Your task to perform on an android device: add a contact in the contacts app Image 0: 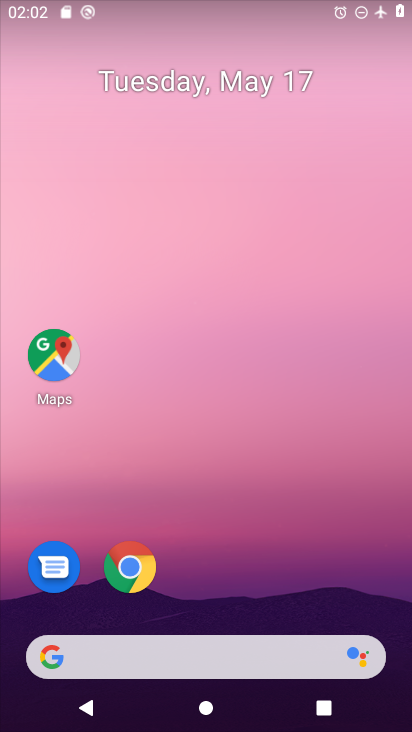
Step 0: drag from (352, 531) to (204, 87)
Your task to perform on an android device: add a contact in the contacts app Image 1: 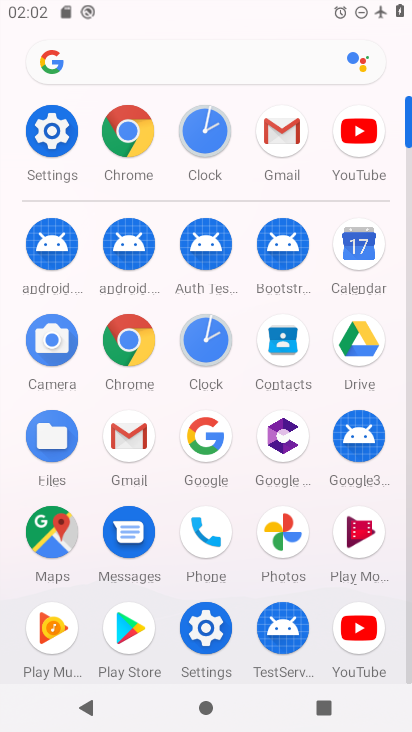
Step 1: click (276, 350)
Your task to perform on an android device: add a contact in the contacts app Image 2: 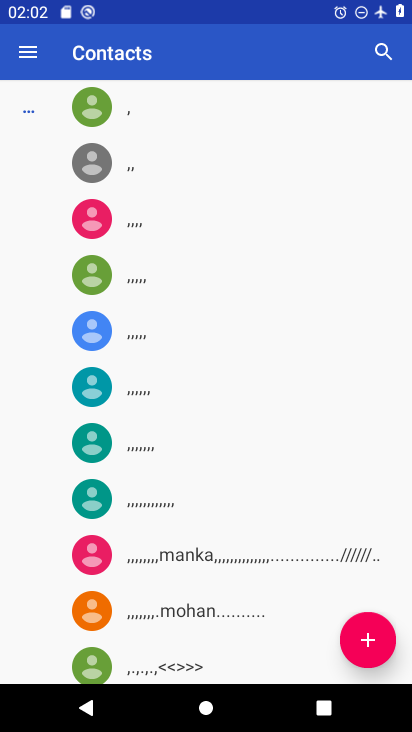
Step 2: click (376, 635)
Your task to perform on an android device: add a contact in the contacts app Image 3: 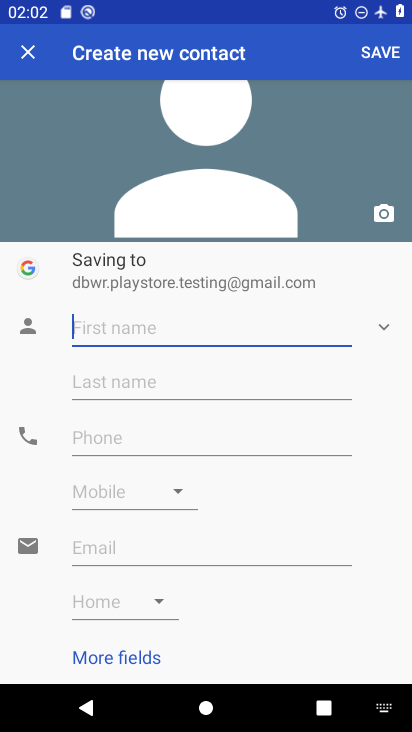
Step 3: type " kjhgfd"
Your task to perform on an android device: add a contact in the contacts app Image 4: 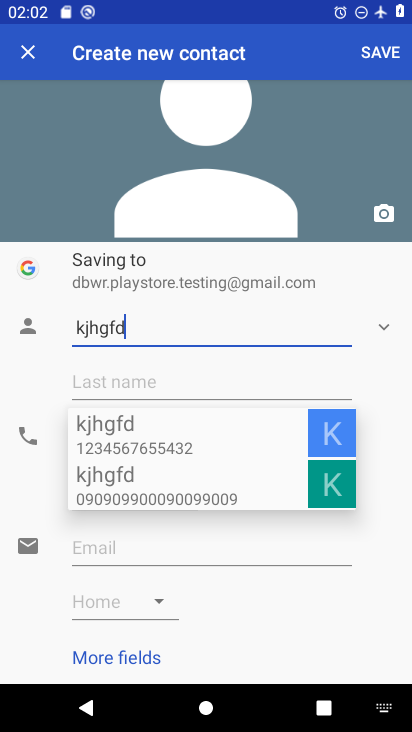
Step 4: click (180, 421)
Your task to perform on an android device: add a contact in the contacts app Image 5: 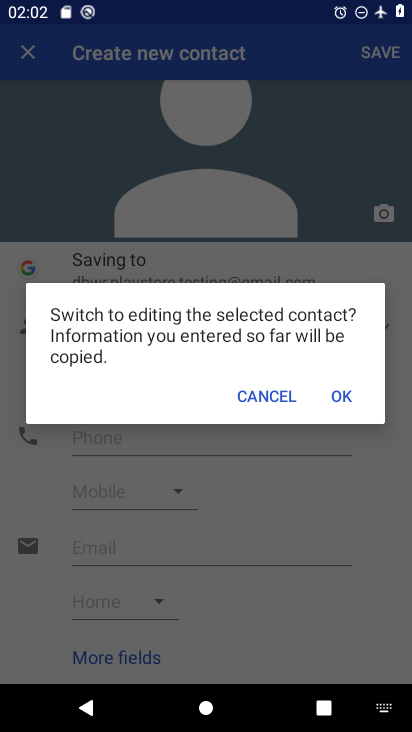
Step 5: click (276, 400)
Your task to perform on an android device: add a contact in the contacts app Image 6: 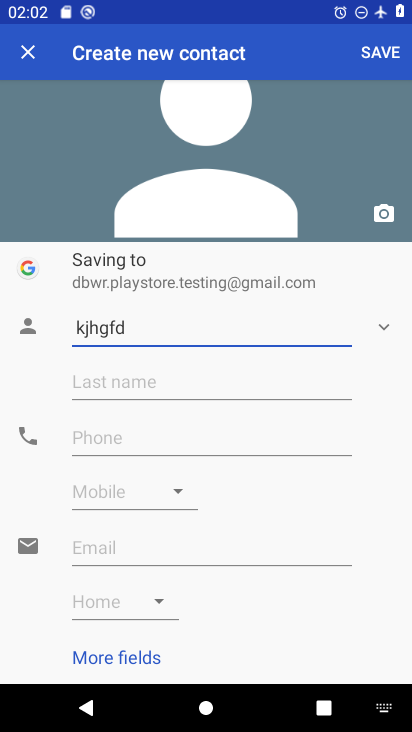
Step 6: click (131, 440)
Your task to perform on an android device: add a contact in the contacts app Image 7: 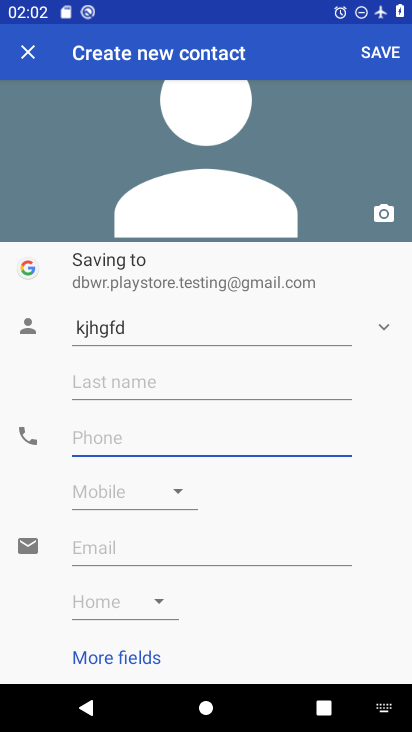
Step 7: type "4654e54"
Your task to perform on an android device: add a contact in the contacts app Image 8: 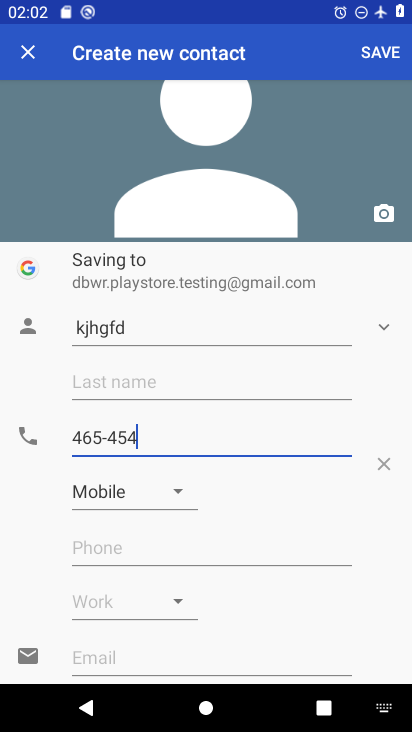
Step 8: click (373, 41)
Your task to perform on an android device: add a contact in the contacts app Image 9: 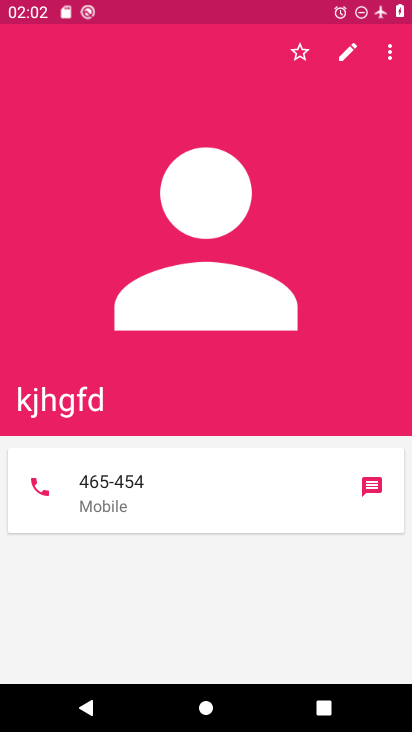
Step 9: task complete